Your task to perform on an android device: remove spam from my inbox in the gmail app Image 0: 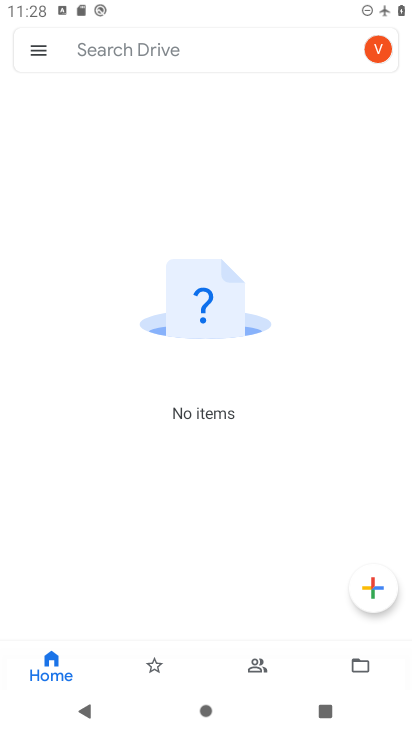
Step 0: drag from (399, 668) to (404, 634)
Your task to perform on an android device: remove spam from my inbox in the gmail app Image 1: 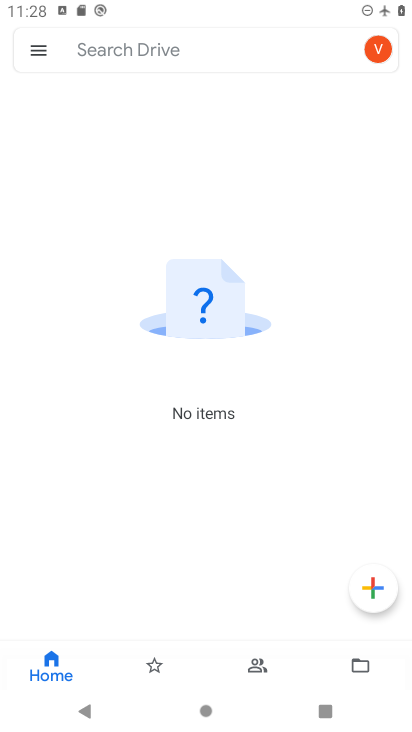
Step 1: press home button
Your task to perform on an android device: remove spam from my inbox in the gmail app Image 2: 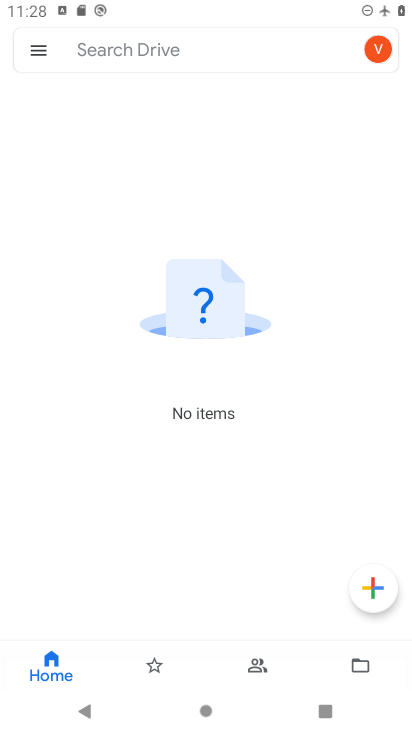
Step 2: drag from (404, 634) to (409, 478)
Your task to perform on an android device: remove spam from my inbox in the gmail app Image 3: 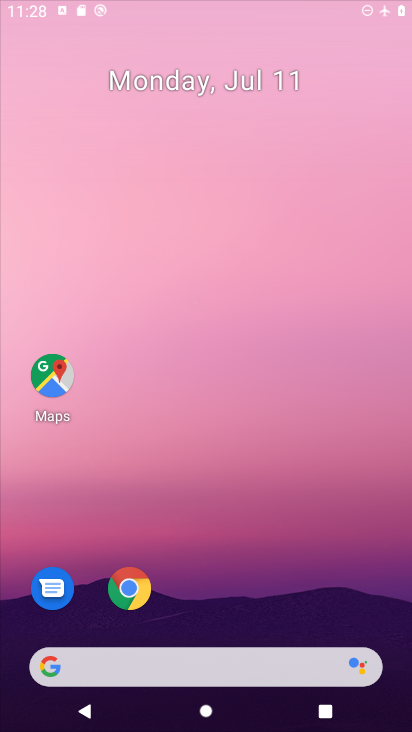
Step 3: drag from (381, 701) to (7, 323)
Your task to perform on an android device: remove spam from my inbox in the gmail app Image 4: 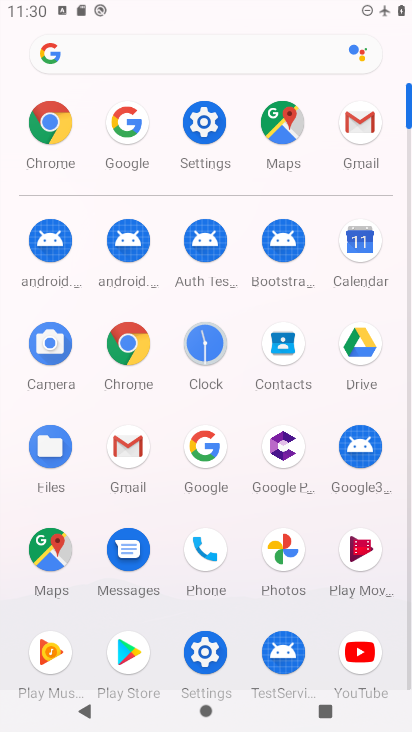
Step 4: click (361, 120)
Your task to perform on an android device: remove spam from my inbox in the gmail app Image 5: 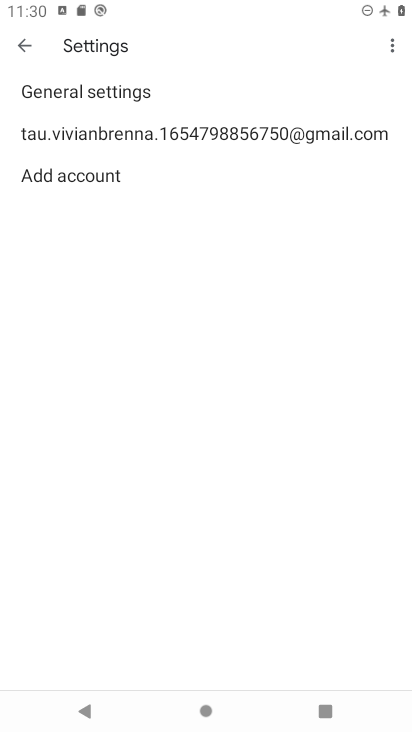
Step 5: task complete